Your task to perform on an android device: toggle pop-ups in chrome Image 0: 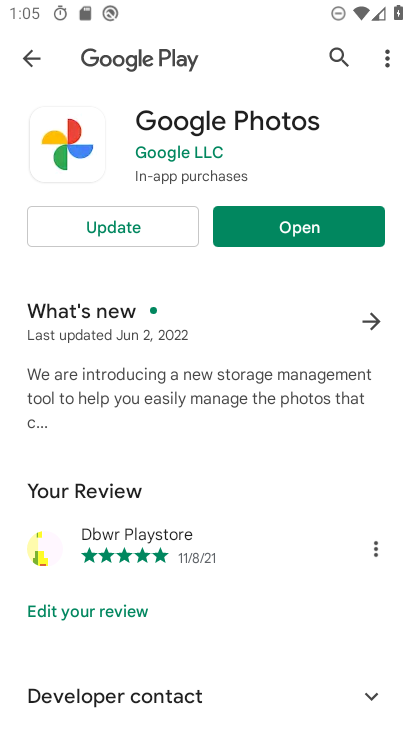
Step 0: press home button
Your task to perform on an android device: toggle pop-ups in chrome Image 1: 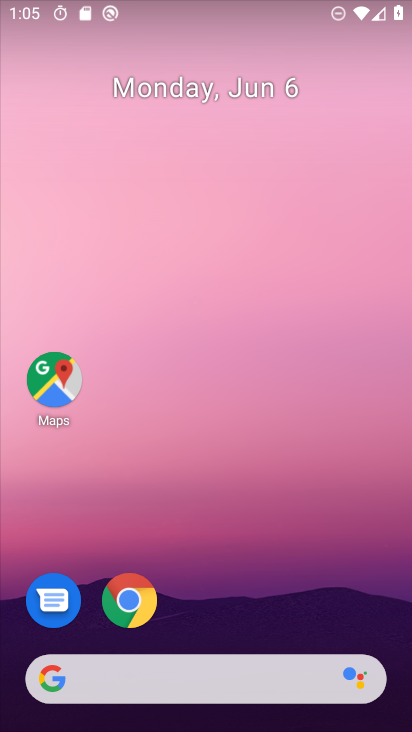
Step 1: click (140, 600)
Your task to perform on an android device: toggle pop-ups in chrome Image 2: 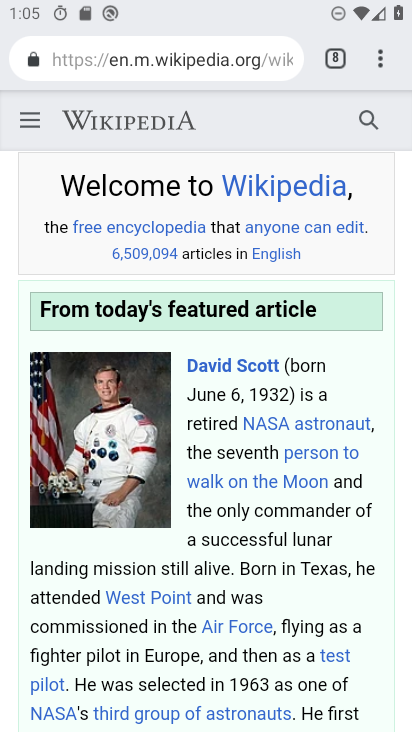
Step 2: drag from (375, 63) to (172, 616)
Your task to perform on an android device: toggle pop-ups in chrome Image 3: 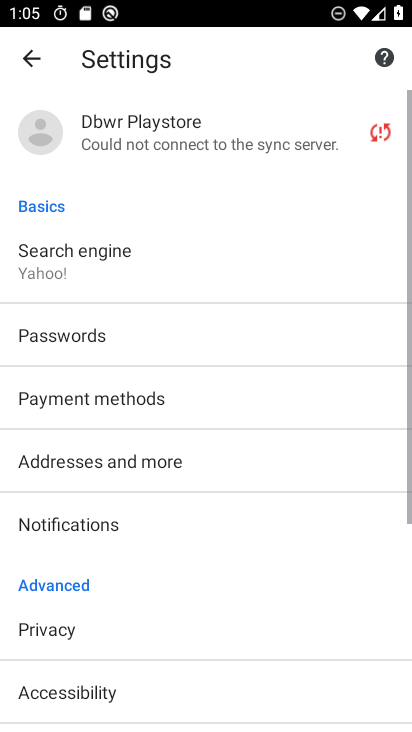
Step 3: drag from (205, 619) to (230, 315)
Your task to perform on an android device: toggle pop-ups in chrome Image 4: 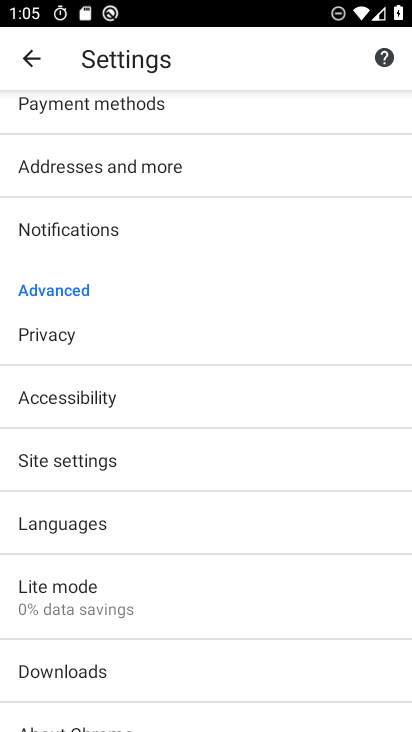
Step 4: click (136, 469)
Your task to perform on an android device: toggle pop-ups in chrome Image 5: 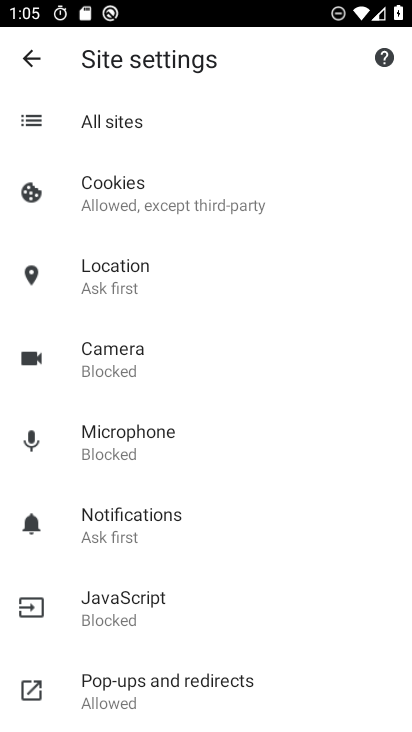
Step 5: click (195, 668)
Your task to perform on an android device: toggle pop-ups in chrome Image 6: 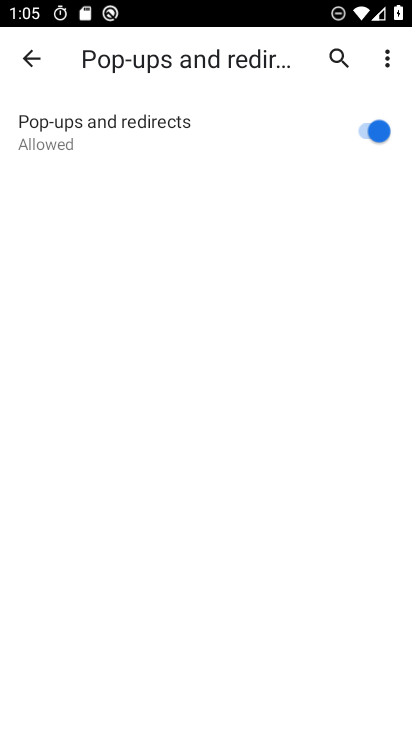
Step 6: click (354, 123)
Your task to perform on an android device: toggle pop-ups in chrome Image 7: 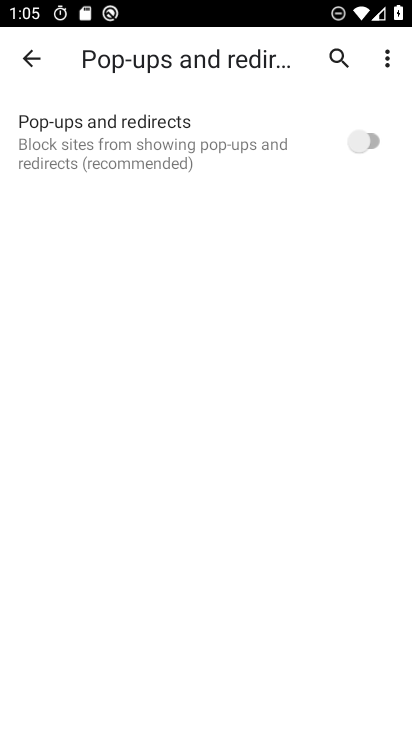
Step 7: task complete